Your task to perform on an android device: Open the stopwatch Image 0: 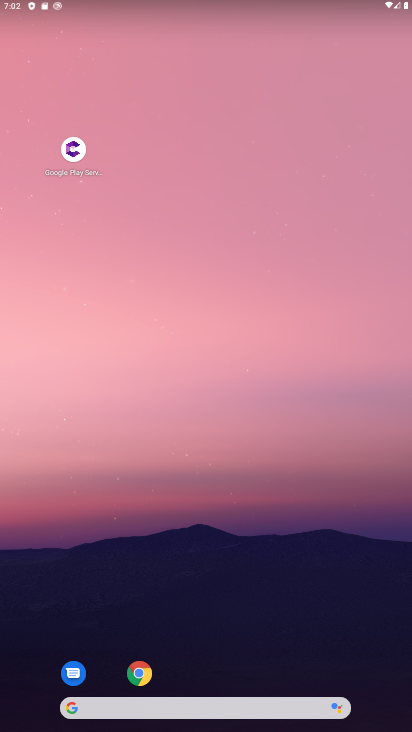
Step 0: drag from (260, 704) to (232, 113)
Your task to perform on an android device: Open the stopwatch Image 1: 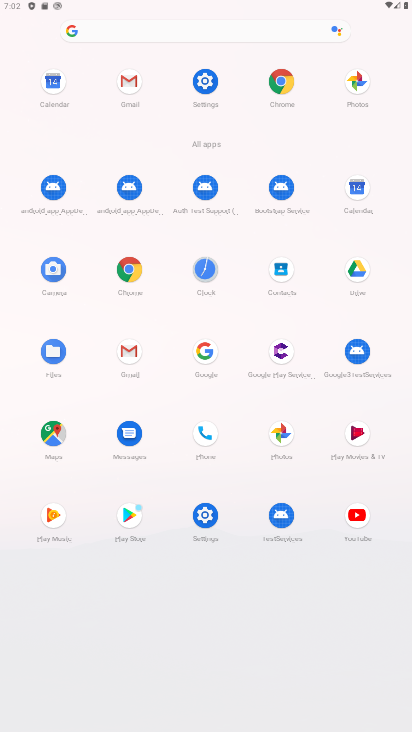
Step 1: click (204, 280)
Your task to perform on an android device: Open the stopwatch Image 2: 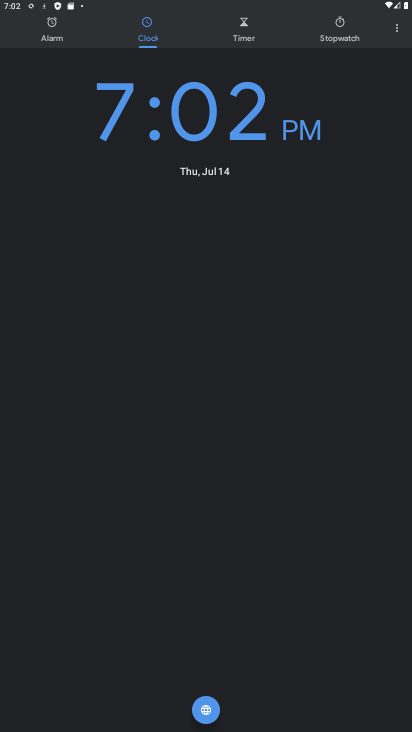
Step 2: click (340, 38)
Your task to perform on an android device: Open the stopwatch Image 3: 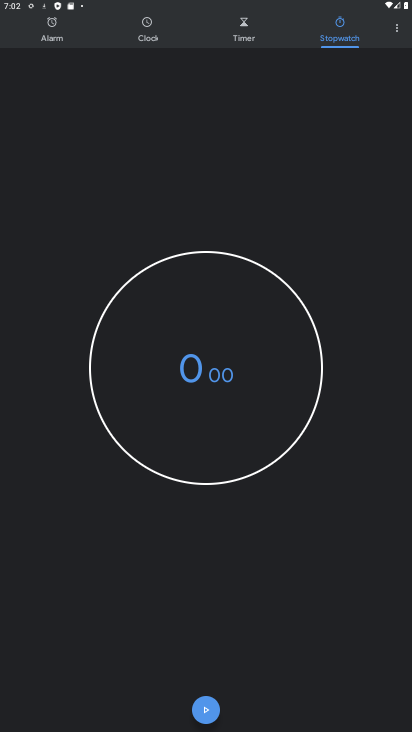
Step 3: task complete